Your task to perform on an android device: open a new tab in the chrome app Image 0: 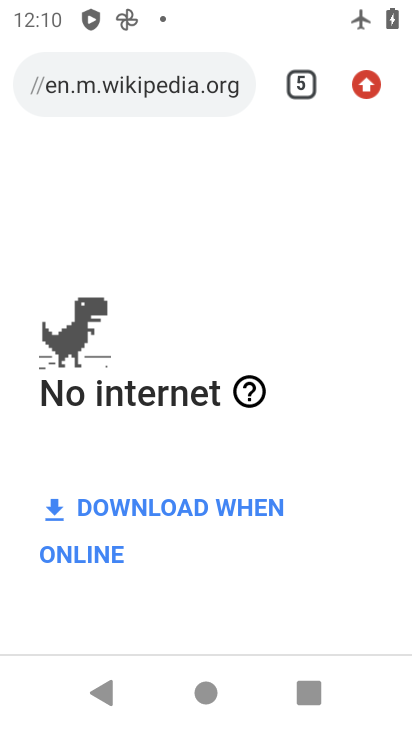
Step 0: drag from (308, 87) to (308, 125)
Your task to perform on an android device: open a new tab in the chrome app Image 1: 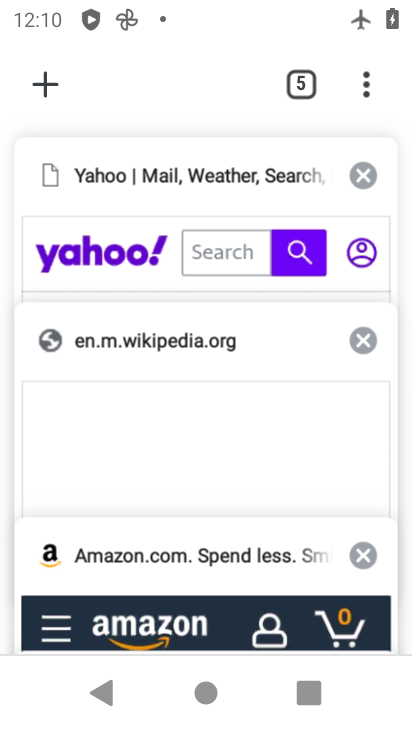
Step 1: click (43, 94)
Your task to perform on an android device: open a new tab in the chrome app Image 2: 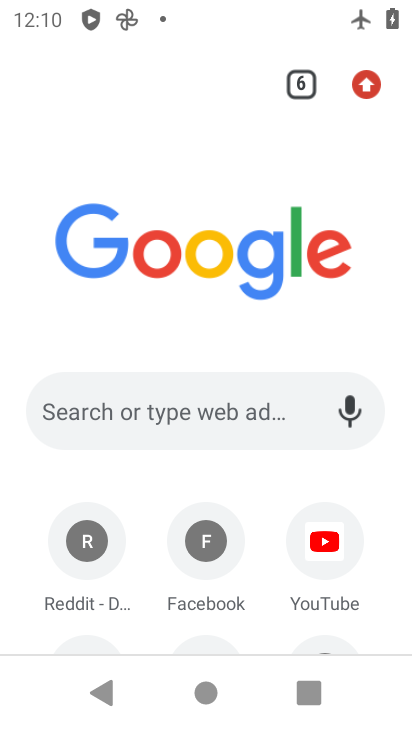
Step 2: task complete